Your task to perform on an android device: Go to internet settings Image 0: 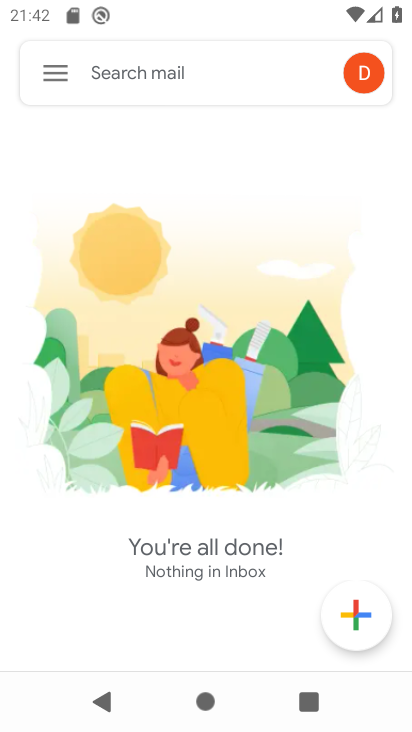
Step 0: press home button
Your task to perform on an android device: Go to internet settings Image 1: 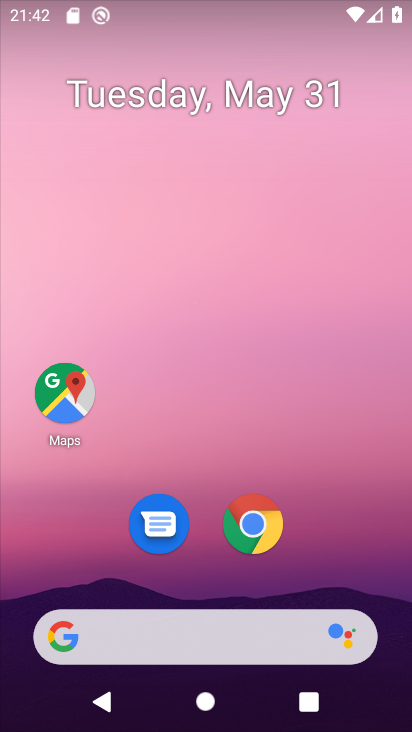
Step 1: drag from (284, 439) to (318, 0)
Your task to perform on an android device: Go to internet settings Image 2: 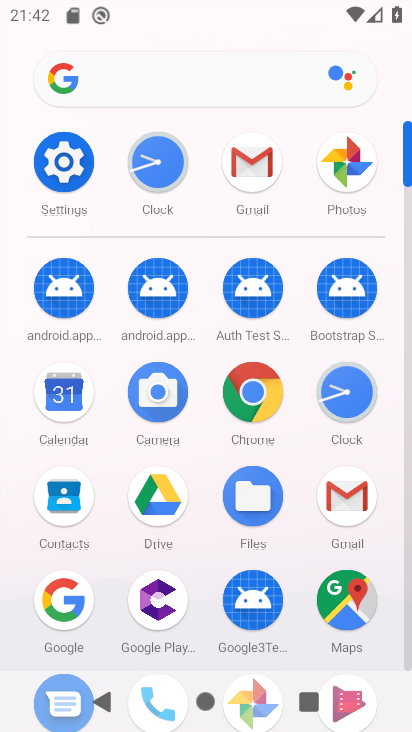
Step 2: click (69, 164)
Your task to perform on an android device: Go to internet settings Image 3: 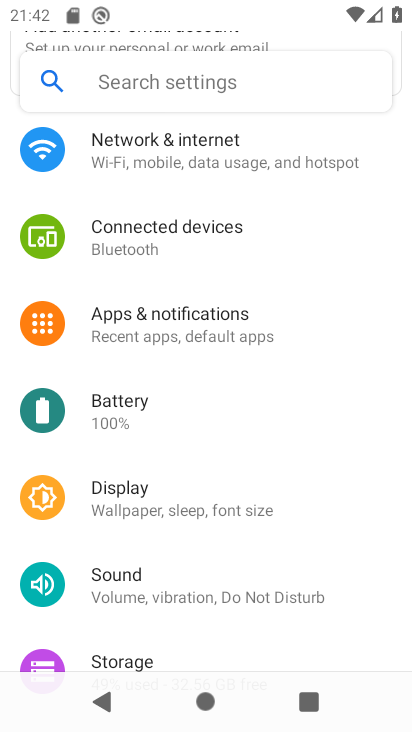
Step 3: click (222, 153)
Your task to perform on an android device: Go to internet settings Image 4: 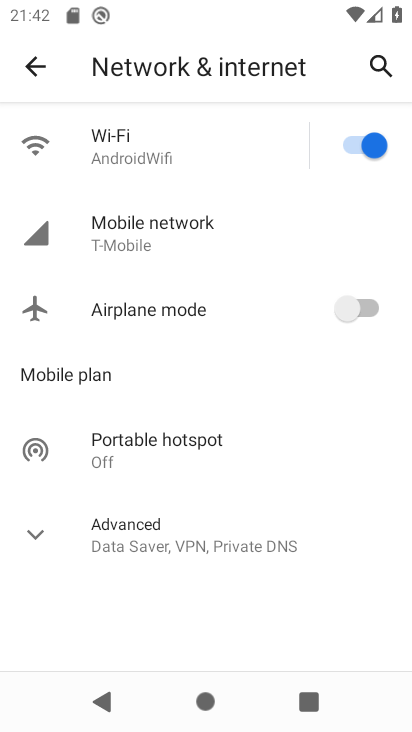
Step 4: task complete